Your task to perform on an android device: turn off translation in the chrome app Image 0: 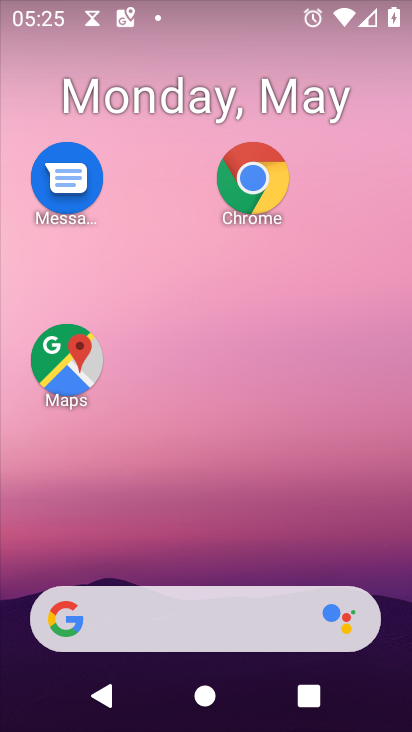
Step 0: drag from (187, 581) to (239, 7)
Your task to perform on an android device: turn off translation in the chrome app Image 1: 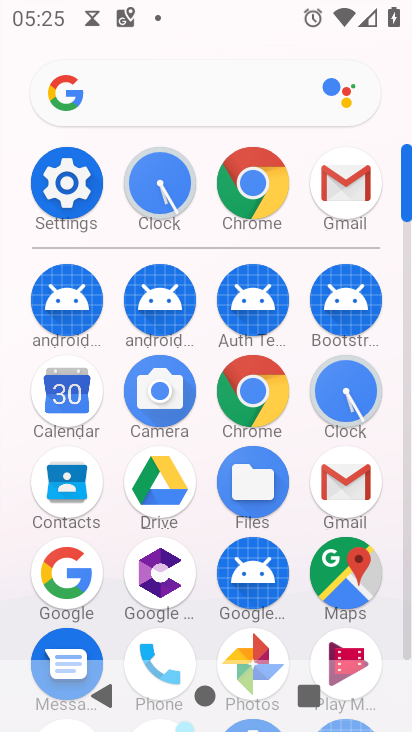
Step 1: click (256, 395)
Your task to perform on an android device: turn off translation in the chrome app Image 2: 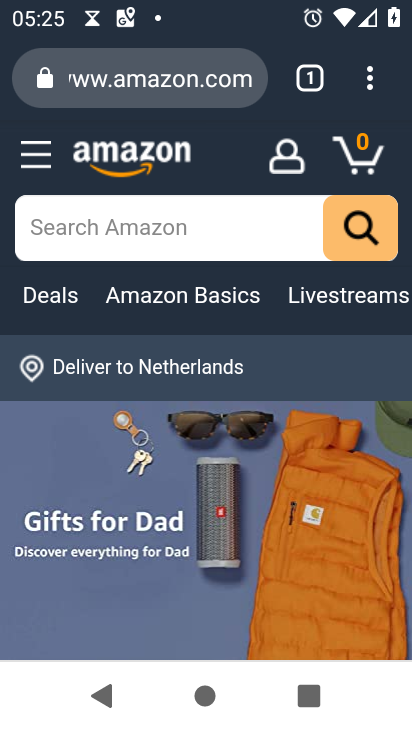
Step 2: click (379, 83)
Your task to perform on an android device: turn off translation in the chrome app Image 3: 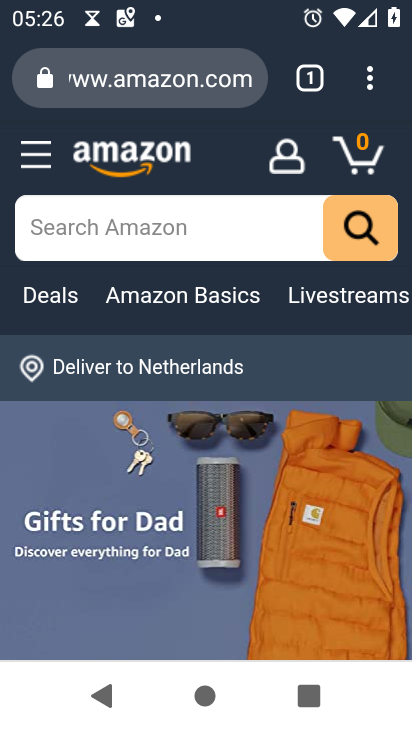
Step 3: click (371, 89)
Your task to perform on an android device: turn off translation in the chrome app Image 4: 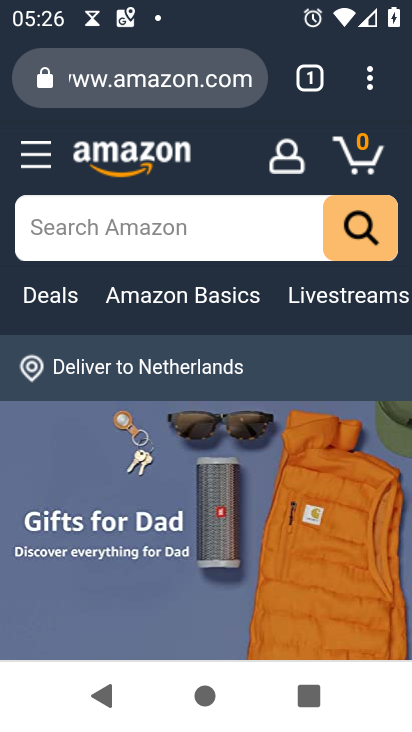
Step 4: click (365, 88)
Your task to perform on an android device: turn off translation in the chrome app Image 5: 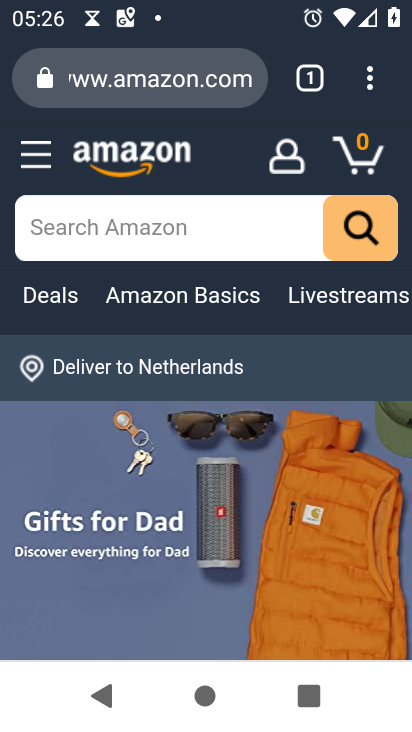
Step 5: click (363, 75)
Your task to perform on an android device: turn off translation in the chrome app Image 6: 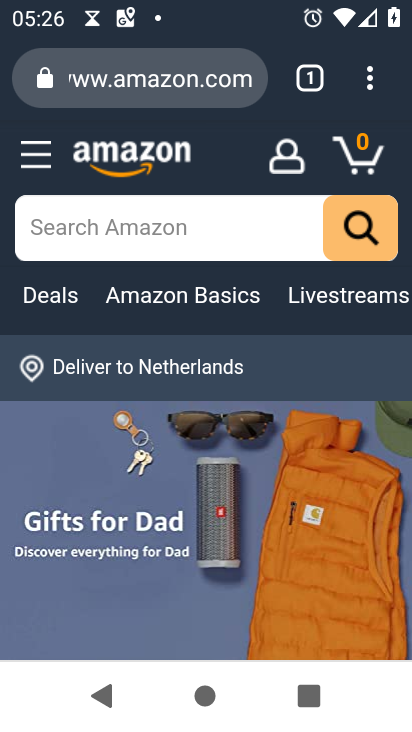
Step 6: click (371, 74)
Your task to perform on an android device: turn off translation in the chrome app Image 7: 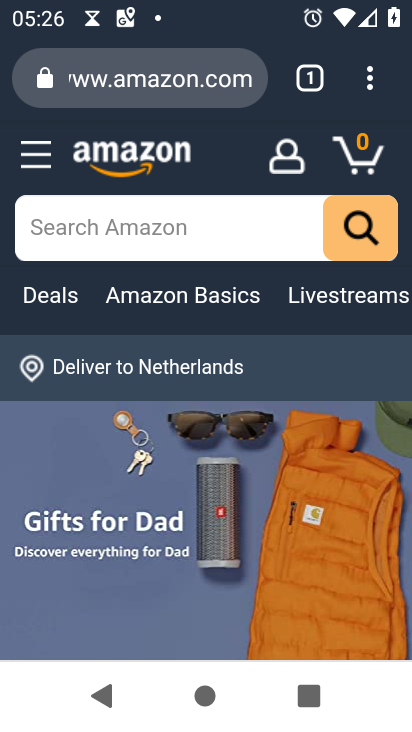
Step 7: click (367, 83)
Your task to perform on an android device: turn off translation in the chrome app Image 8: 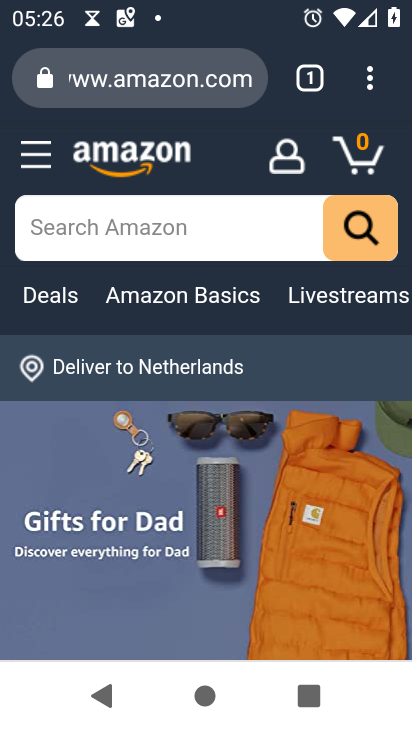
Step 8: click (370, 85)
Your task to perform on an android device: turn off translation in the chrome app Image 9: 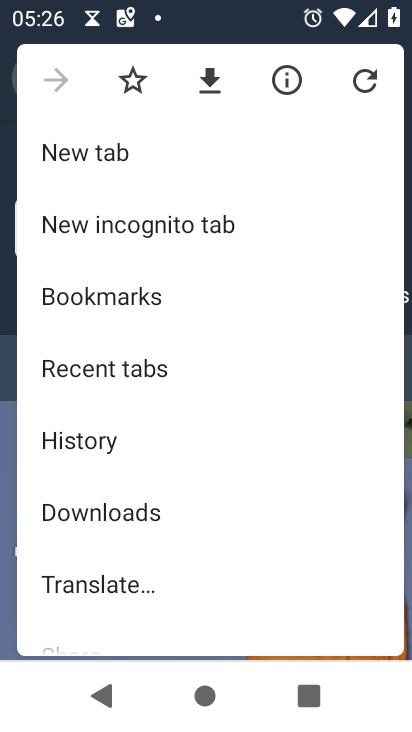
Step 9: drag from (118, 577) to (264, 167)
Your task to perform on an android device: turn off translation in the chrome app Image 10: 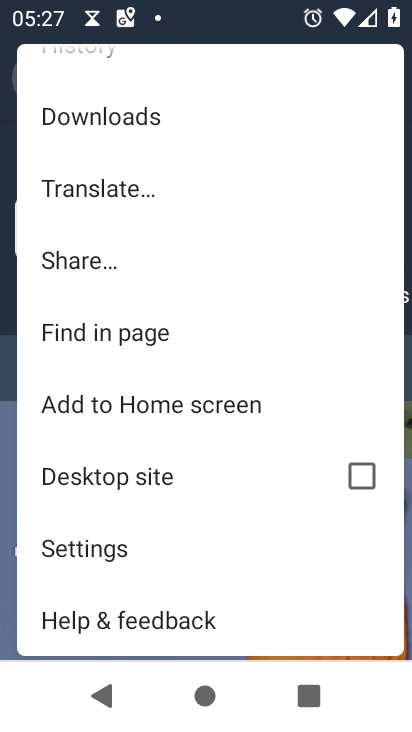
Step 10: click (96, 546)
Your task to perform on an android device: turn off translation in the chrome app Image 11: 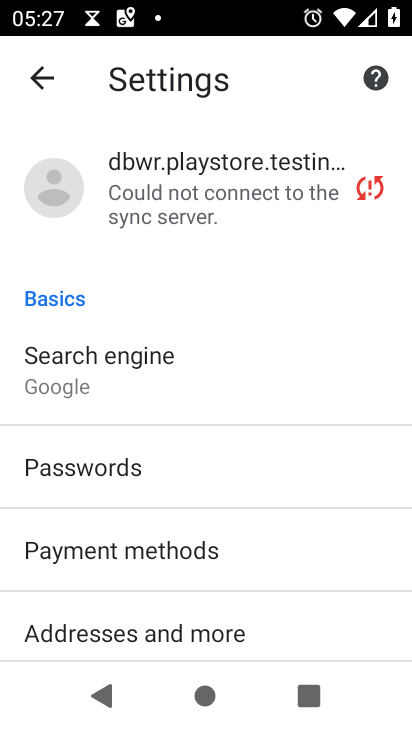
Step 11: drag from (145, 570) to (261, 116)
Your task to perform on an android device: turn off translation in the chrome app Image 12: 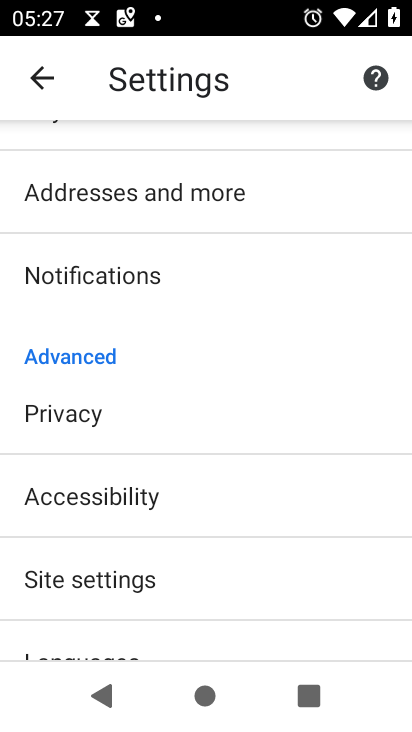
Step 12: drag from (132, 615) to (250, 292)
Your task to perform on an android device: turn off translation in the chrome app Image 13: 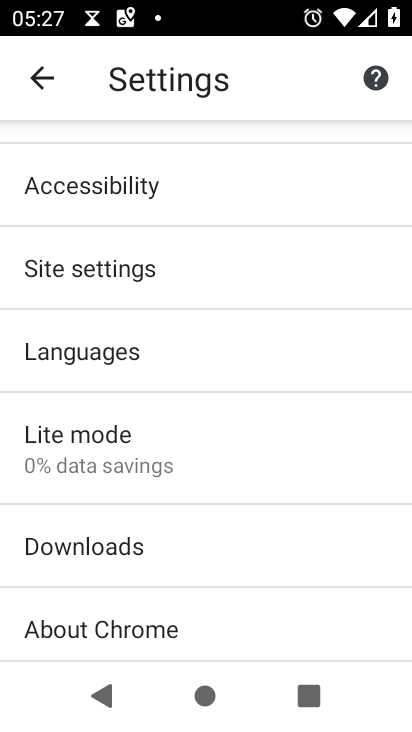
Step 13: drag from (96, 603) to (216, 366)
Your task to perform on an android device: turn off translation in the chrome app Image 14: 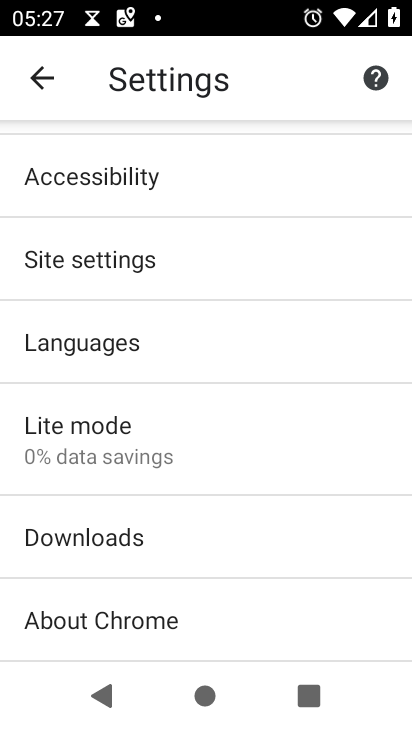
Step 14: click (62, 351)
Your task to perform on an android device: turn off translation in the chrome app Image 15: 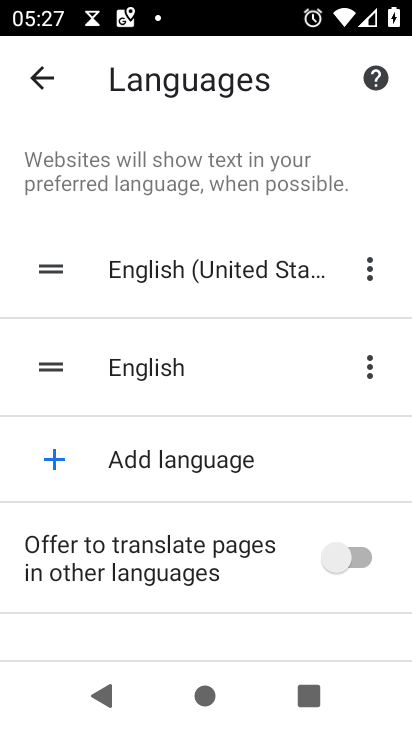
Step 15: task complete